Your task to perform on an android device: Open Wikipedia Image 0: 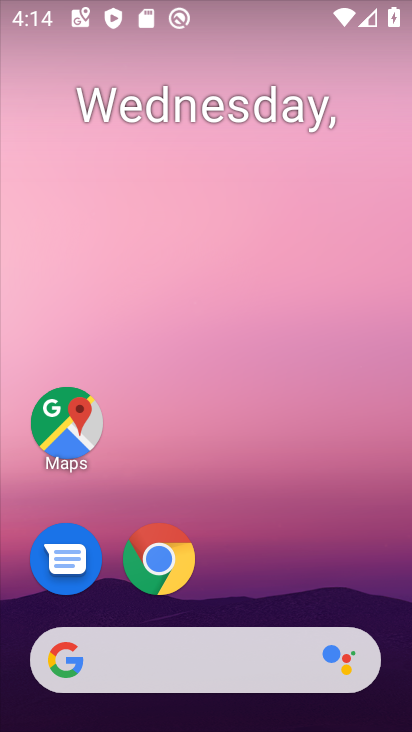
Step 0: click (163, 552)
Your task to perform on an android device: Open Wikipedia Image 1: 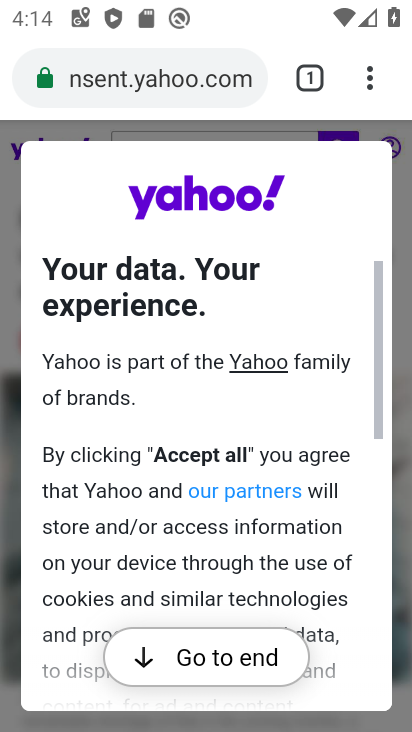
Step 1: click (313, 65)
Your task to perform on an android device: Open Wikipedia Image 2: 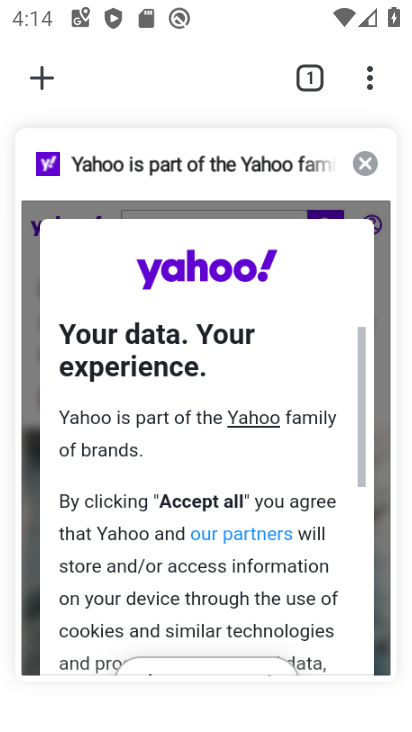
Step 2: click (37, 75)
Your task to perform on an android device: Open Wikipedia Image 3: 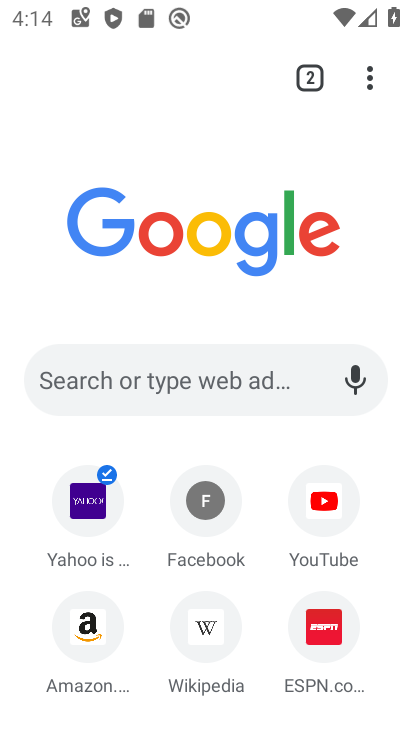
Step 3: click (212, 627)
Your task to perform on an android device: Open Wikipedia Image 4: 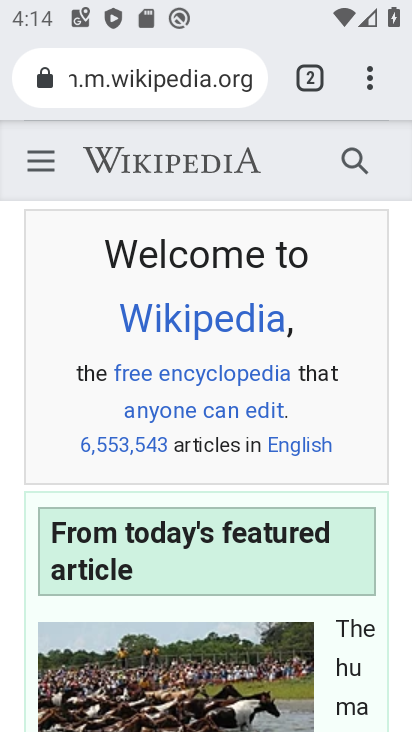
Step 4: task complete